Your task to perform on an android device: turn off notifications in google photos Image 0: 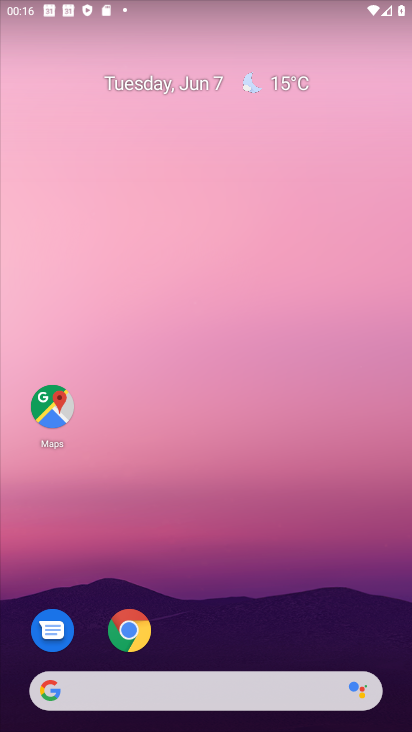
Step 0: drag from (317, 592) to (298, 217)
Your task to perform on an android device: turn off notifications in google photos Image 1: 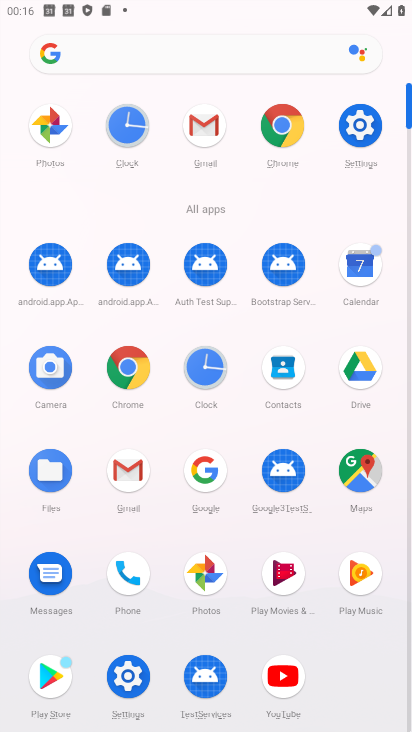
Step 1: click (205, 585)
Your task to perform on an android device: turn off notifications in google photos Image 2: 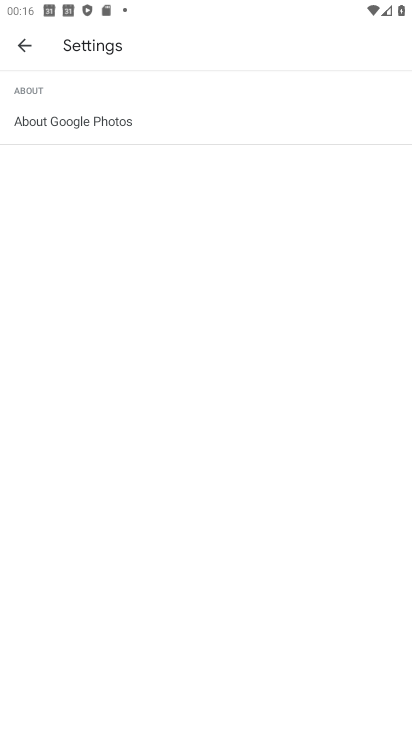
Step 2: click (37, 45)
Your task to perform on an android device: turn off notifications in google photos Image 3: 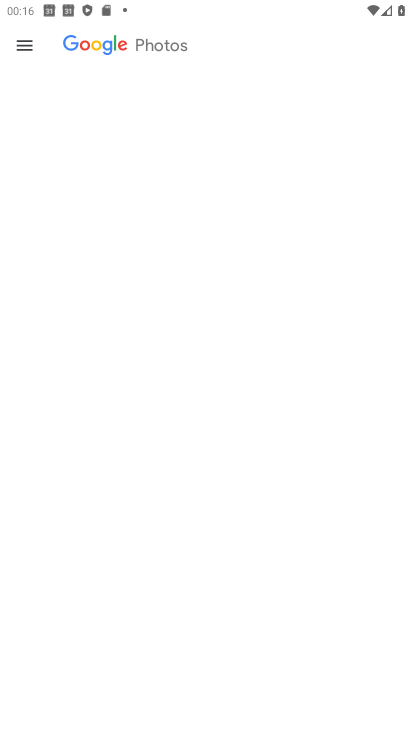
Step 3: click (21, 50)
Your task to perform on an android device: turn off notifications in google photos Image 4: 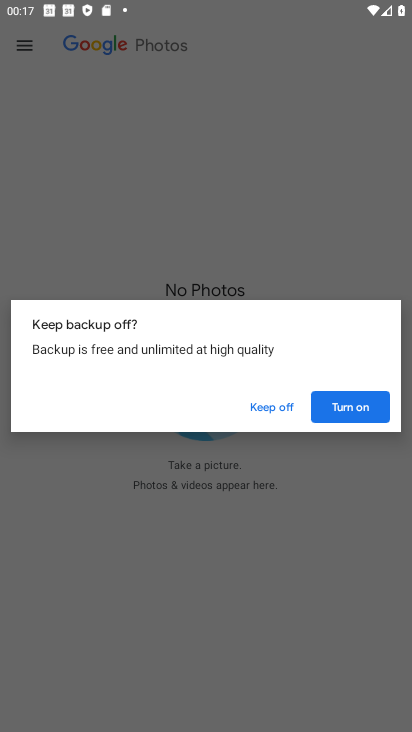
Step 4: click (271, 410)
Your task to perform on an android device: turn off notifications in google photos Image 5: 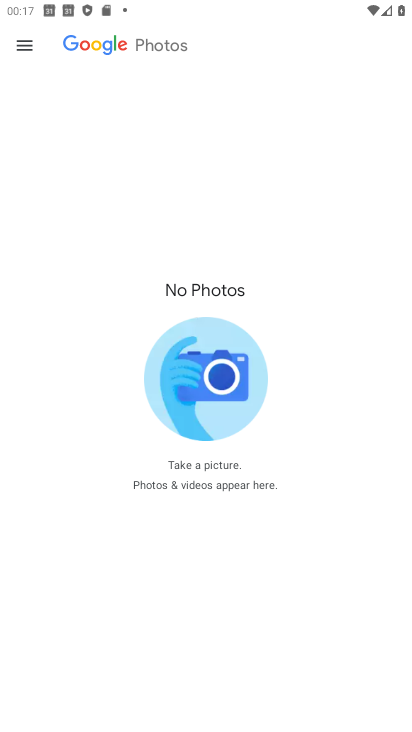
Step 5: task complete